Your task to perform on an android device: Is it going to rain tomorrow? Image 0: 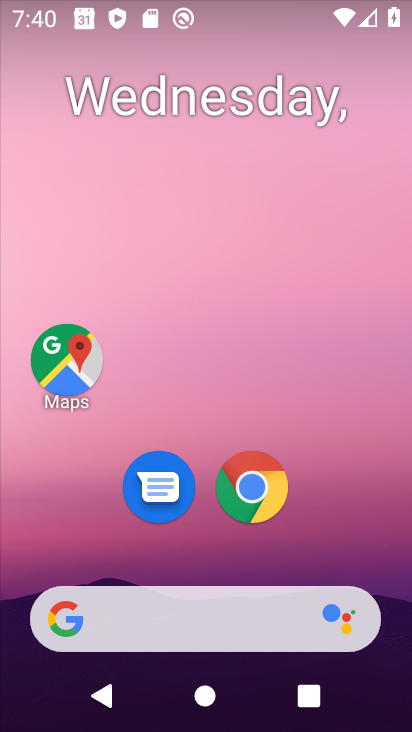
Step 0: click (101, 622)
Your task to perform on an android device: Is it going to rain tomorrow? Image 1: 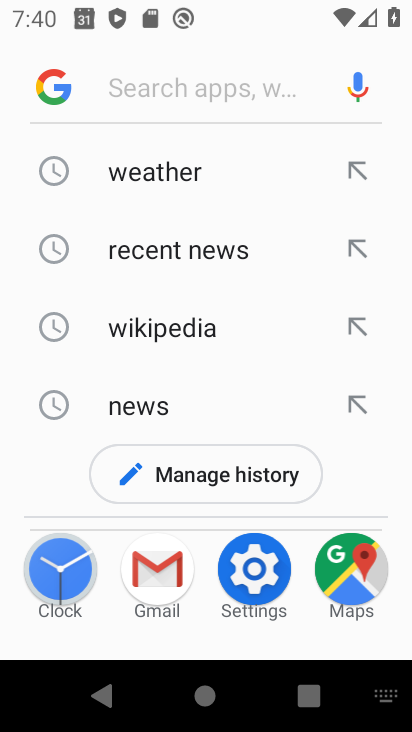
Step 1: click (141, 172)
Your task to perform on an android device: Is it going to rain tomorrow? Image 2: 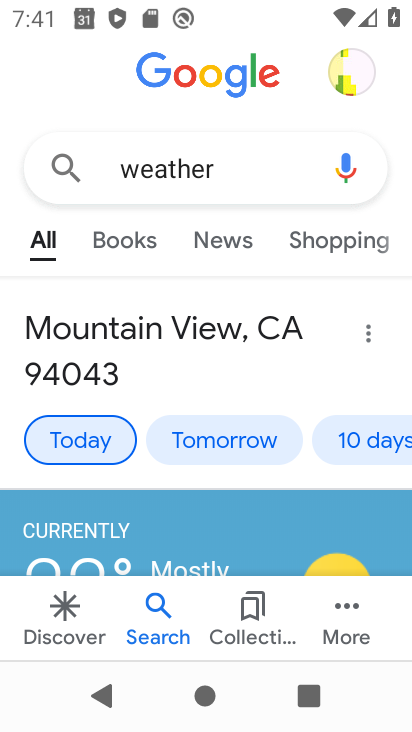
Step 2: click (215, 443)
Your task to perform on an android device: Is it going to rain tomorrow? Image 3: 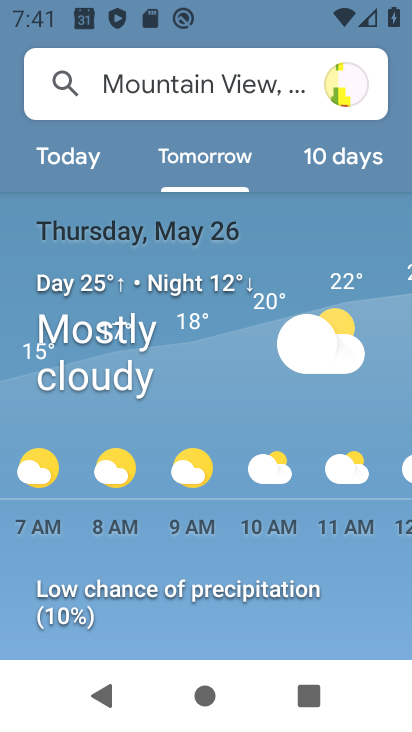
Step 3: task complete